Your task to perform on an android device: What is the recent news? Image 0: 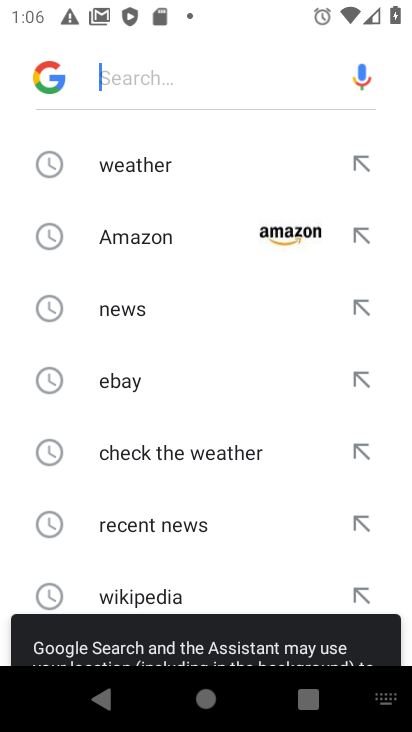
Step 0: click (124, 317)
Your task to perform on an android device: What is the recent news? Image 1: 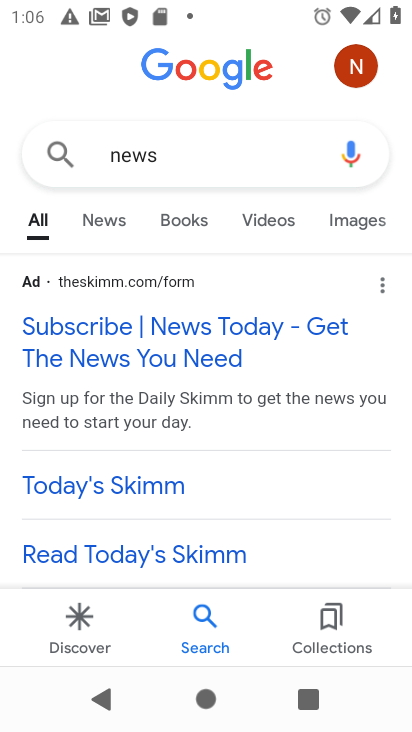
Step 1: click (100, 214)
Your task to perform on an android device: What is the recent news? Image 2: 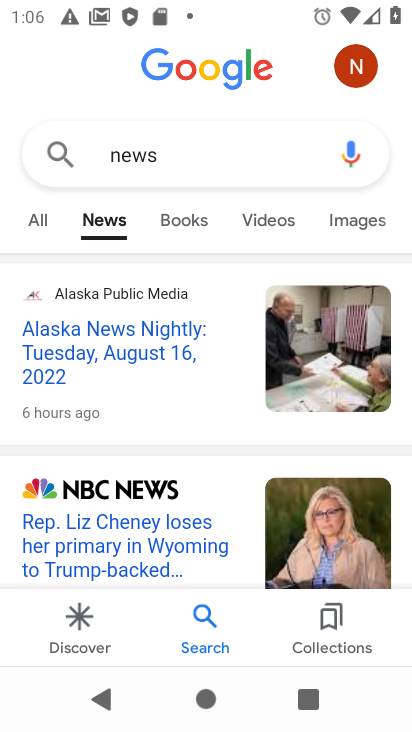
Step 2: task complete